Your task to perform on an android device: Clear all items from cart on target.com. Search for logitech g933 on target.com, select the first entry, add it to the cart, then select checkout. Image 0: 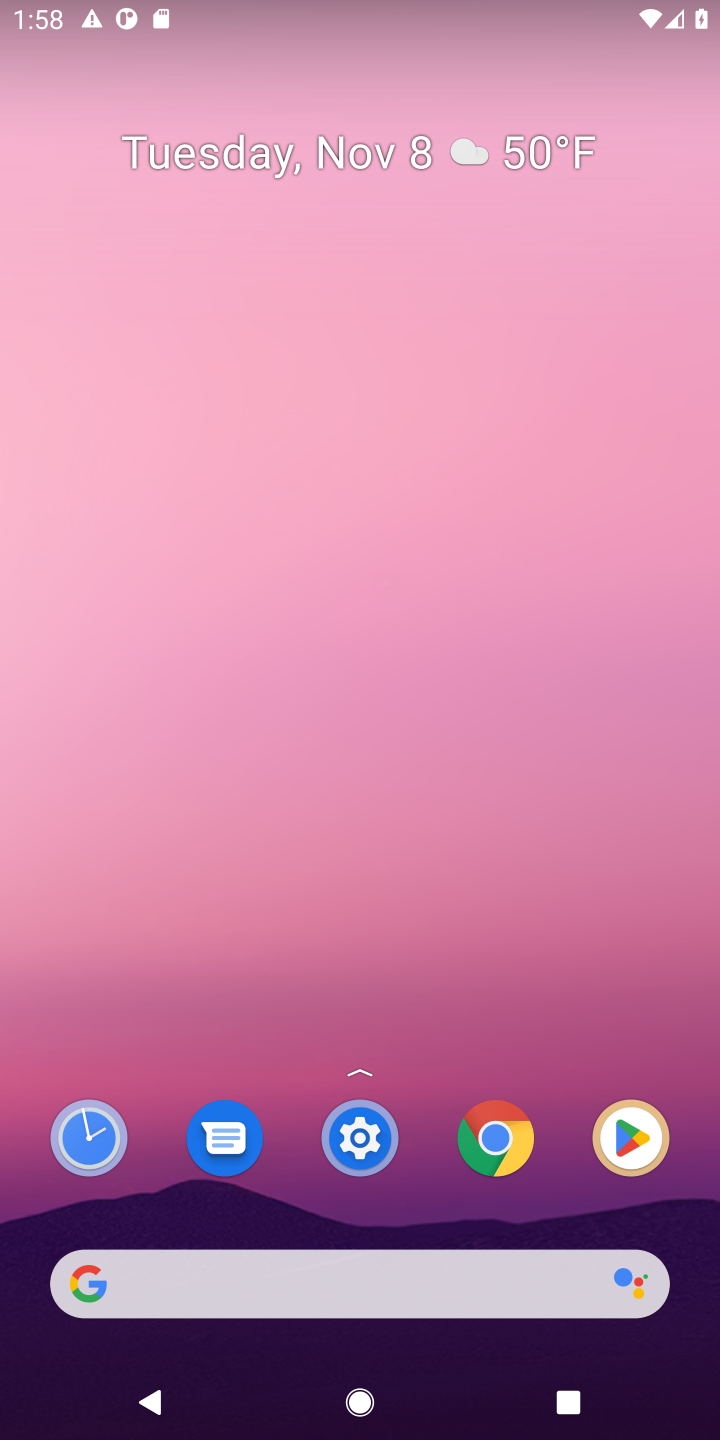
Step 0: click (449, 1256)
Your task to perform on an android device: Clear all items from cart on target.com. Search for logitech g933 on target.com, select the first entry, add it to the cart, then select checkout. Image 1: 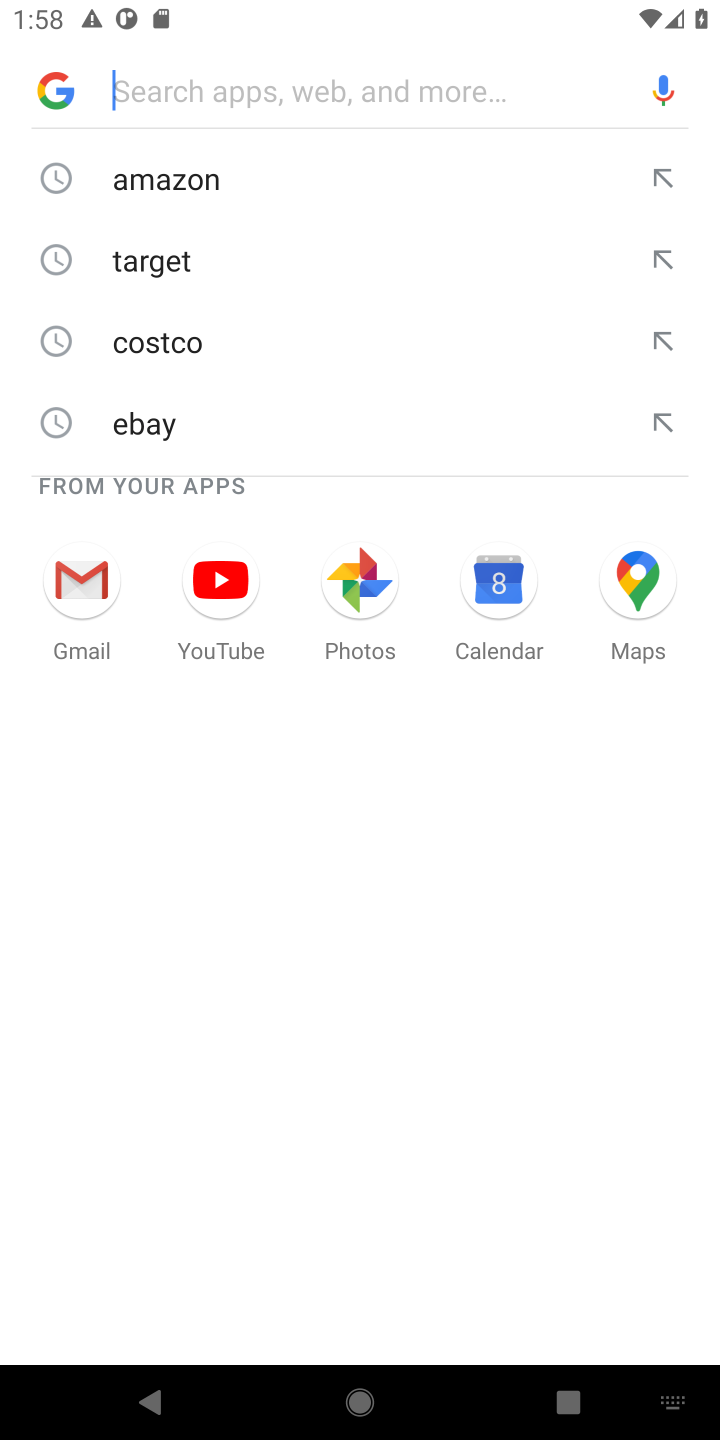
Step 1: type "target"
Your task to perform on an android device: Clear all items from cart on target.com. Search for logitech g933 on target.com, select the first entry, add it to the cart, then select checkout. Image 2: 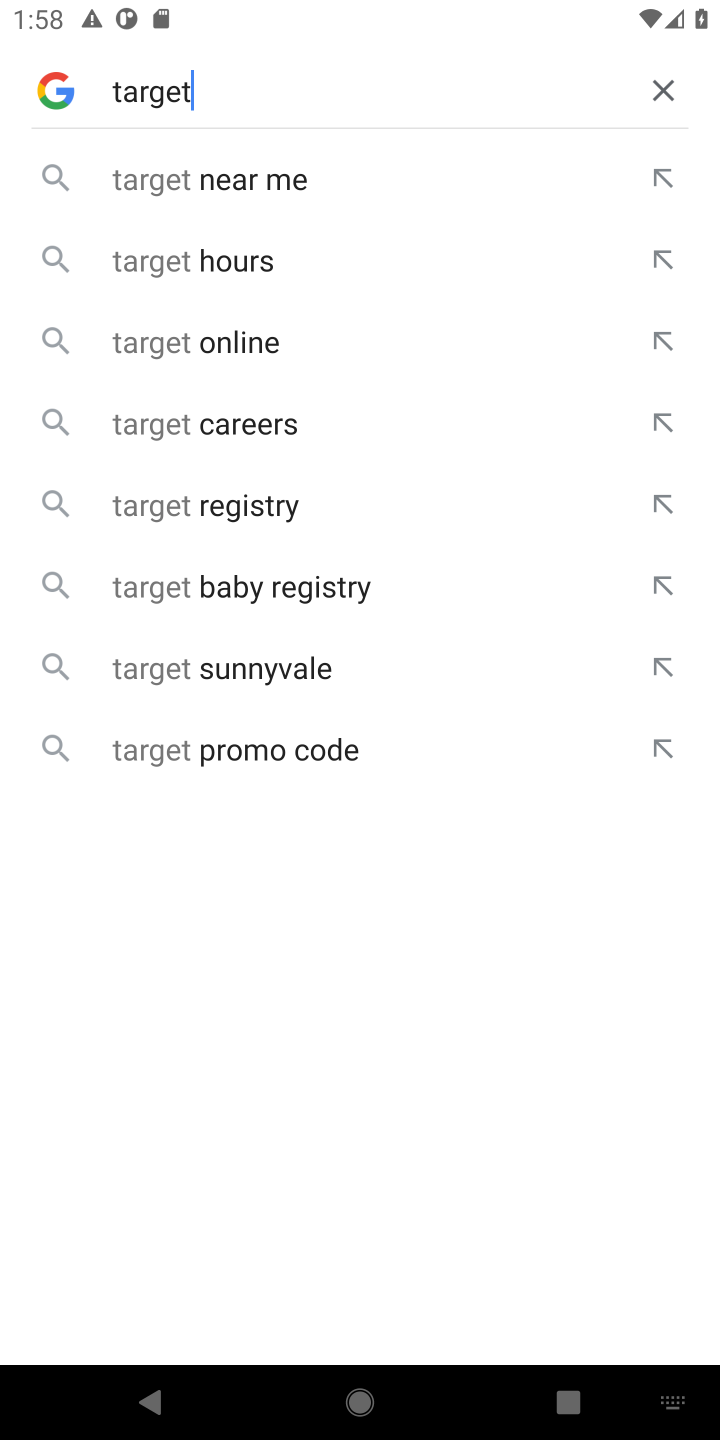
Step 2: click (218, 254)
Your task to perform on an android device: Clear all items from cart on target.com. Search for logitech g933 on target.com, select the first entry, add it to the cart, then select checkout. Image 3: 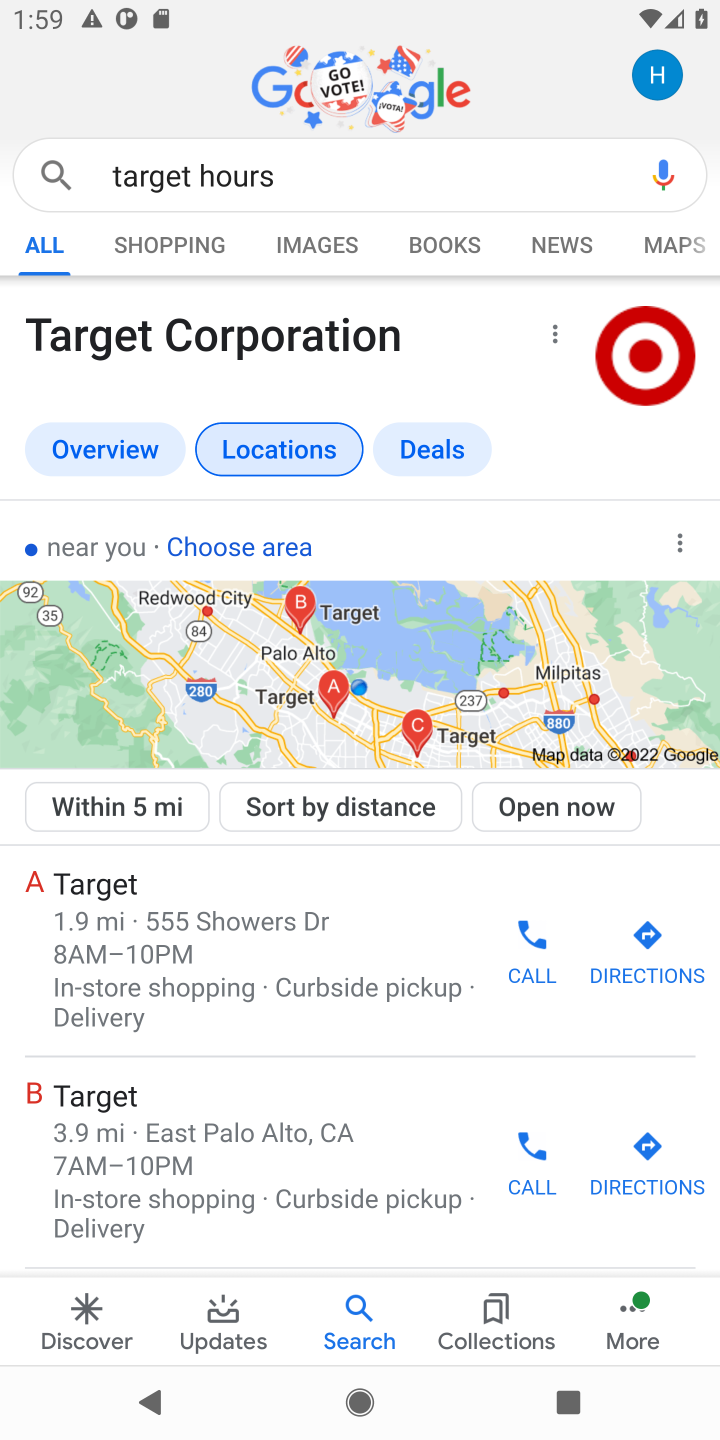
Step 3: task complete